Your task to perform on an android device: turn off translation in the chrome app Image 0: 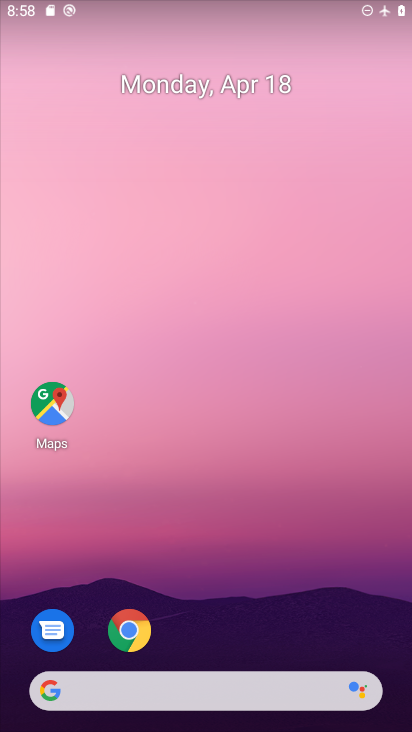
Step 0: click (142, 626)
Your task to perform on an android device: turn off translation in the chrome app Image 1: 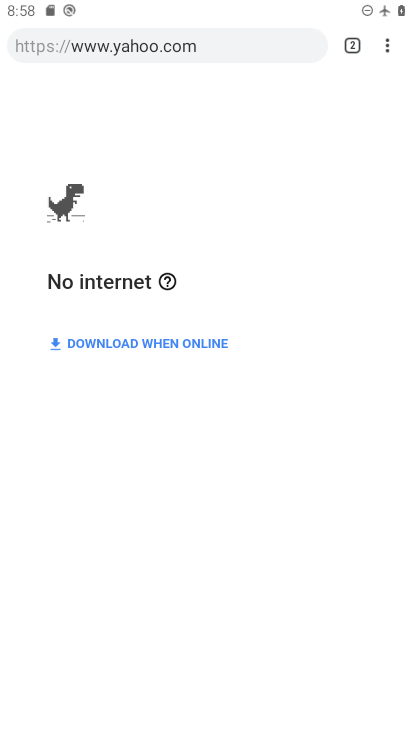
Step 1: click (390, 50)
Your task to perform on an android device: turn off translation in the chrome app Image 2: 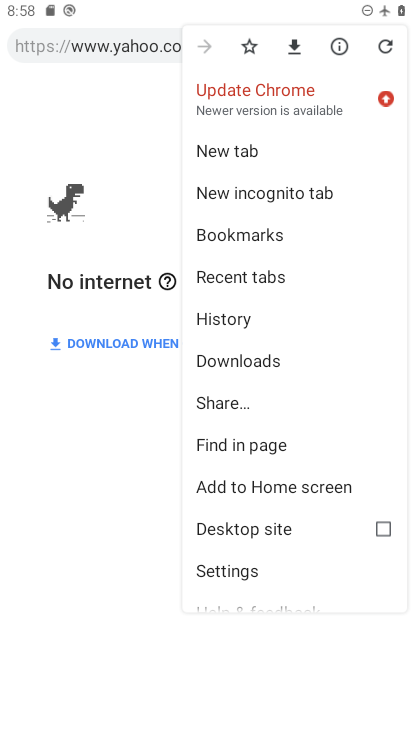
Step 2: click (233, 568)
Your task to perform on an android device: turn off translation in the chrome app Image 3: 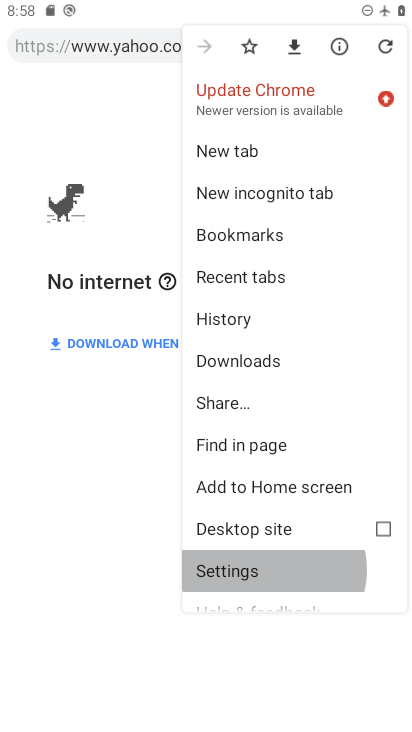
Step 3: click (233, 568)
Your task to perform on an android device: turn off translation in the chrome app Image 4: 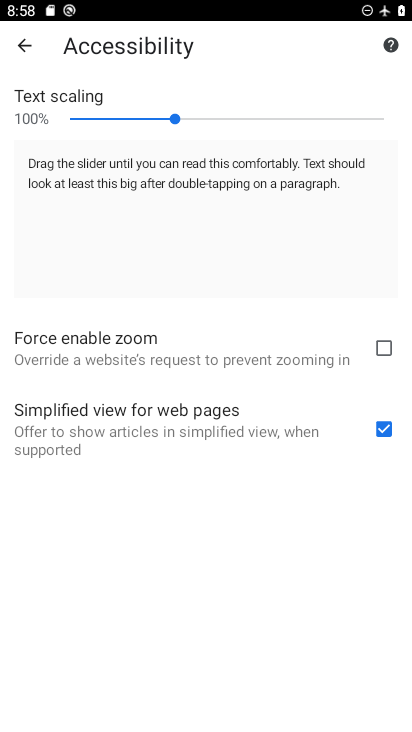
Step 4: click (28, 43)
Your task to perform on an android device: turn off translation in the chrome app Image 5: 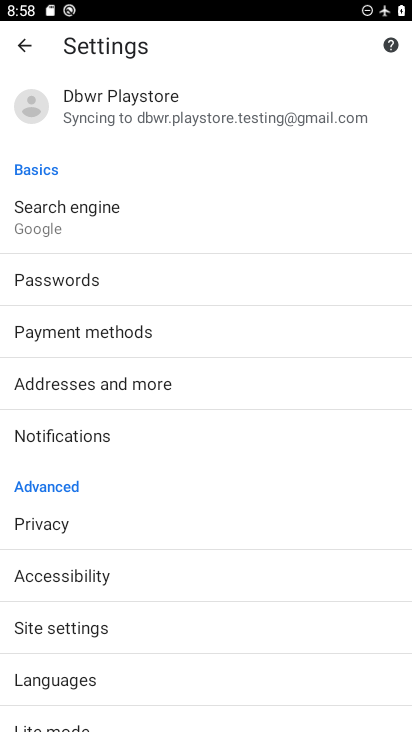
Step 5: click (98, 676)
Your task to perform on an android device: turn off translation in the chrome app Image 6: 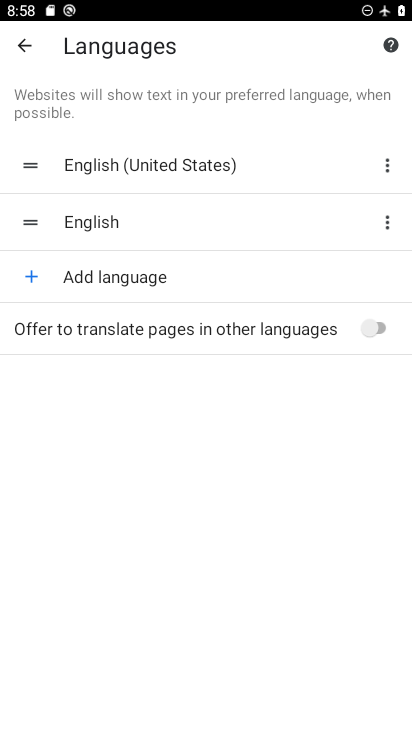
Step 6: task complete